Your task to perform on an android device: move a message to another label in the gmail app Image 0: 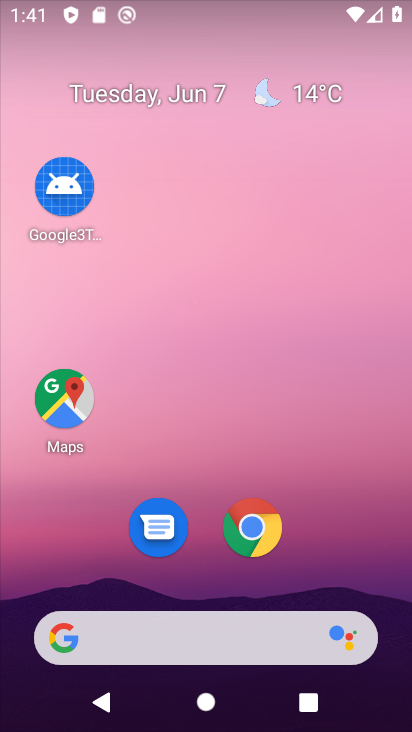
Step 0: drag from (337, 559) to (300, 131)
Your task to perform on an android device: move a message to another label in the gmail app Image 1: 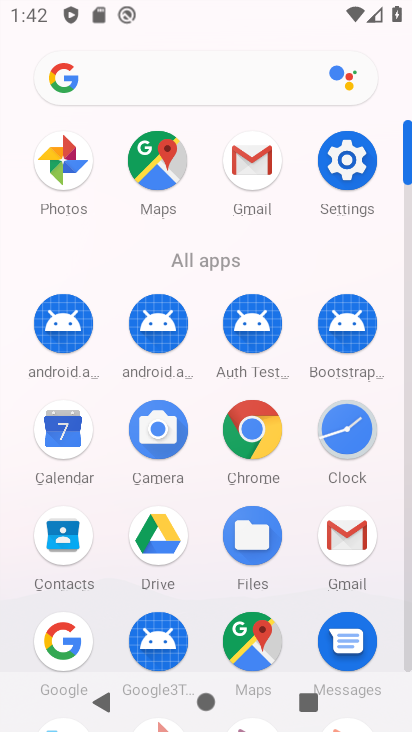
Step 1: click (356, 523)
Your task to perform on an android device: move a message to another label in the gmail app Image 2: 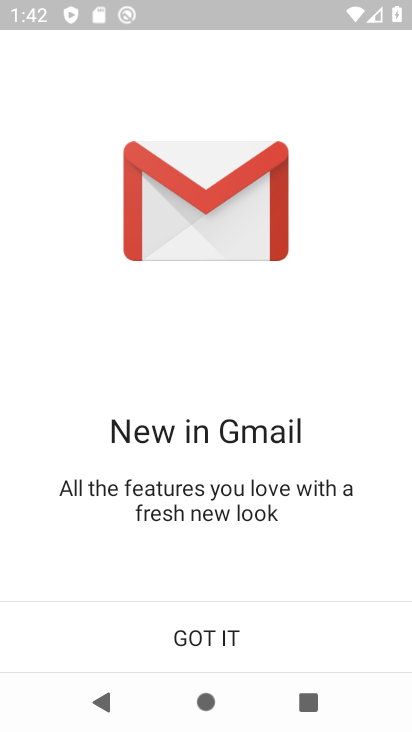
Step 2: click (228, 640)
Your task to perform on an android device: move a message to another label in the gmail app Image 3: 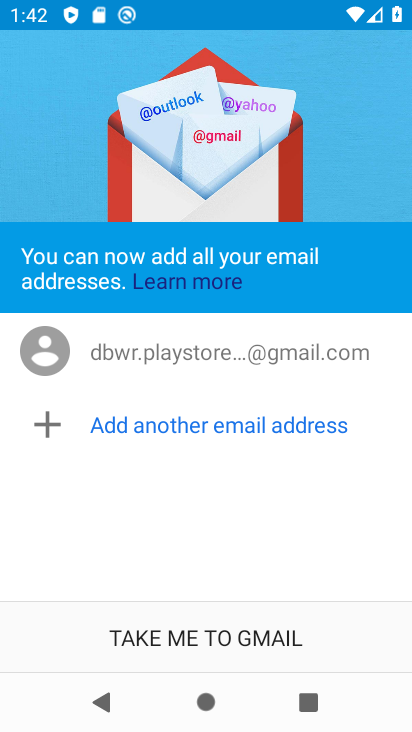
Step 3: click (228, 640)
Your task to perform on an android device: move a message to another label in the gmail app Image 4: 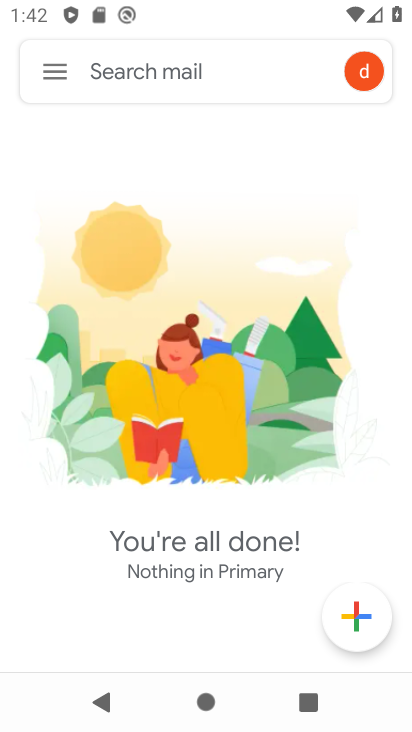
Step 4: click (47, 79)
Your task to perform on an android device: move a message to another label in the gmail app Image 5: 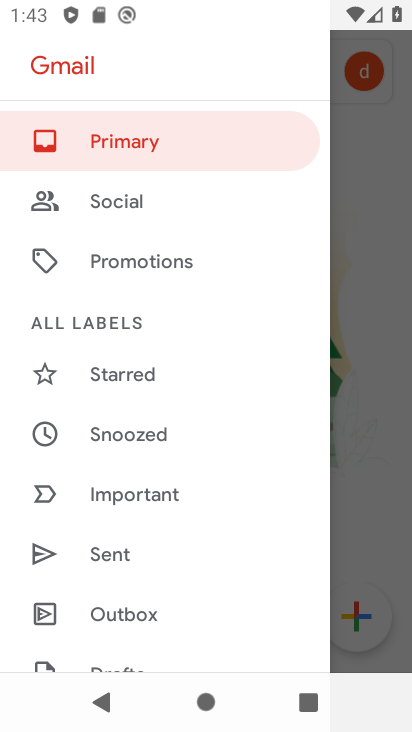
Step 5: drag from (119, 600) to (201, 164)
Your task to perform on an android device: move a message to another label in the gmail app Image 6: 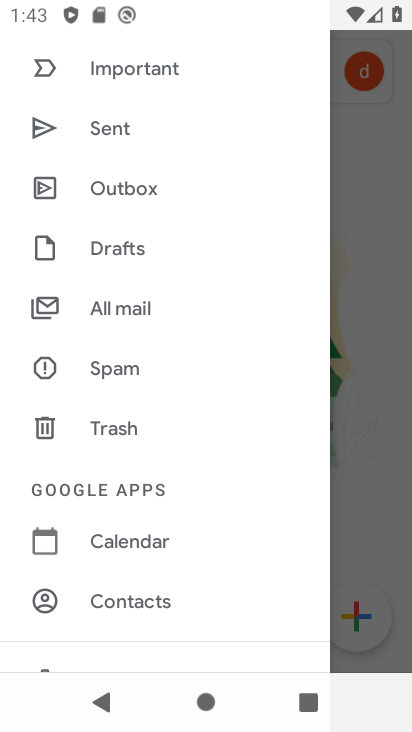
Step 6: click (115, 311)
Your task to perform on an android device: move a message to another label in the gmail app Image 7: 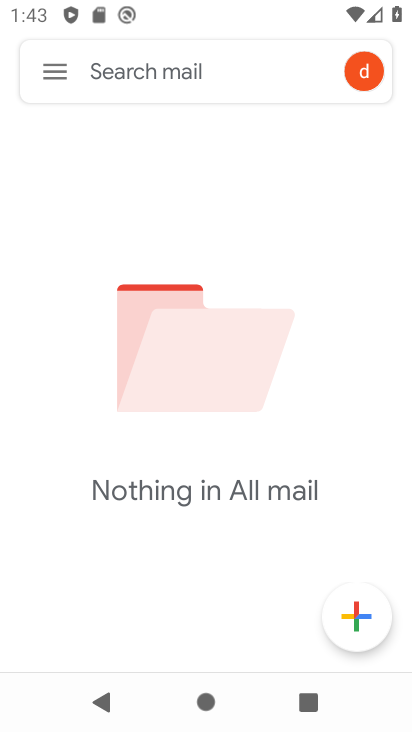
Step 7: task complete